Your task to perform on an android device: Check the news Image 0: 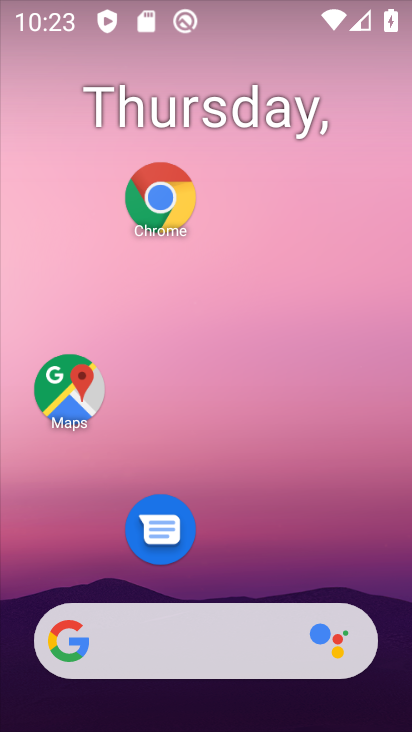
Step 0: drag from (2, 272) to (406, 390)
Your task to perform on an android device: Check the news Image 1: 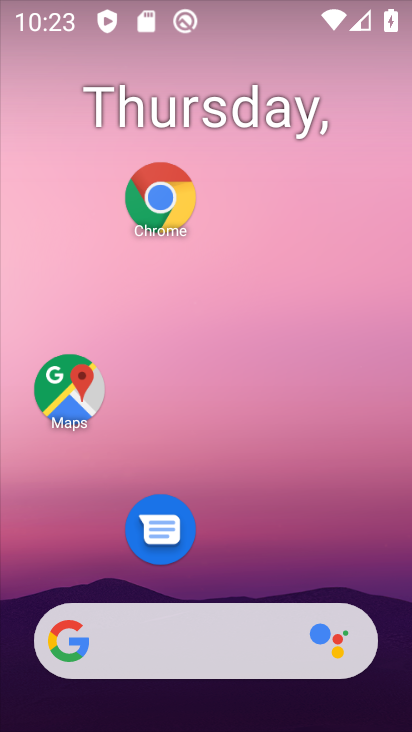
Step 1: task complete